Your task to perform on an android device: toggle airplane mode Image 0: 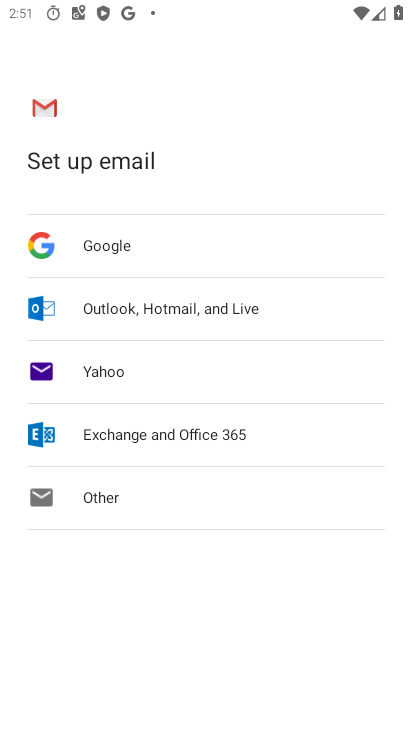
Step 0: click (307, 575)
Your task to perform on an android device: toggle airplane mode Image 1: 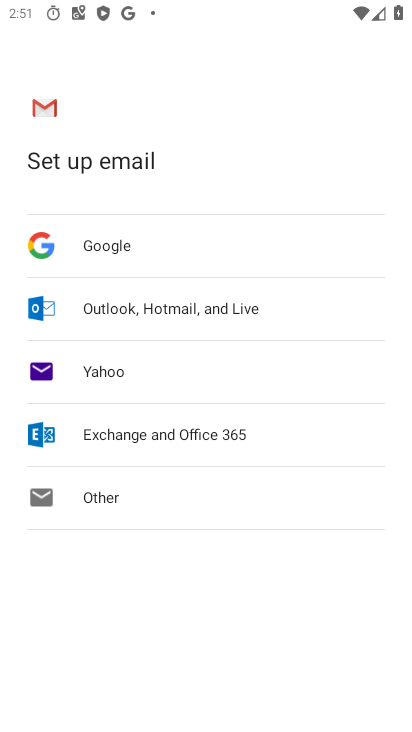
Step 1: press home button
Your task to perform on an android device: toggle airplane mode Image 2: 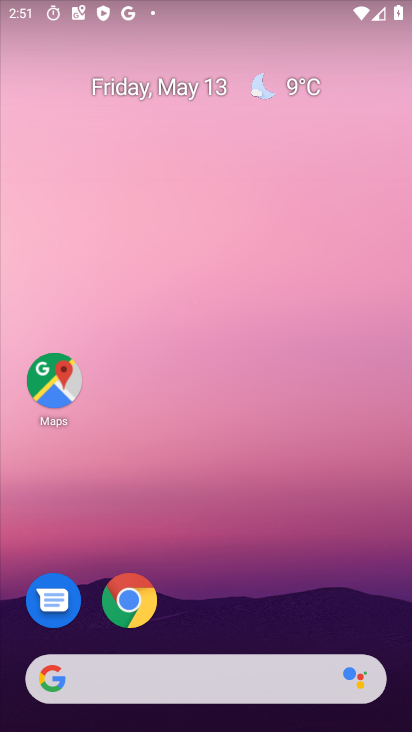
Step 2: drag from (155, 208) to (153, 94)
Your task to perform on an android device: toggle airplane mode Image 3: 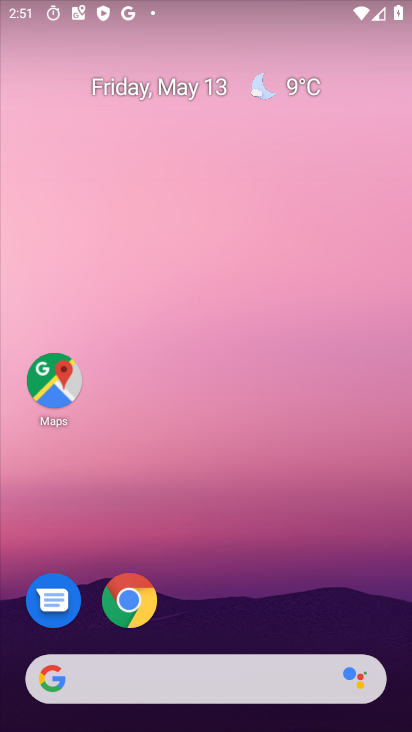
Step 3: drag from (225, 637) to (265, 197)
Your task to perform on an android device: toggle airplane mode Image 4: 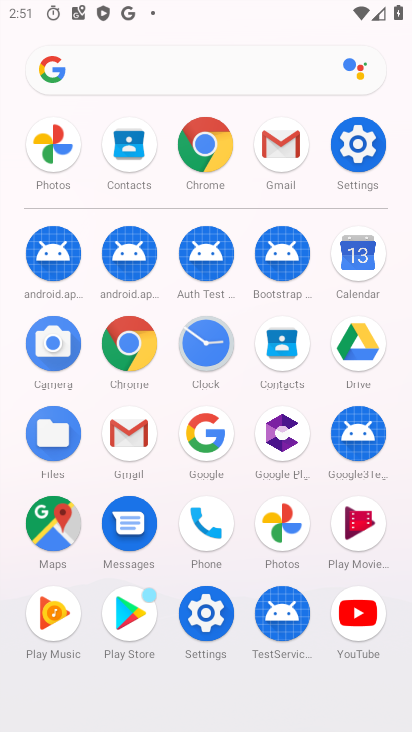
Step 4: click (363, 144)
Your task to perform on an android device: toggle airplane mode Image 5: 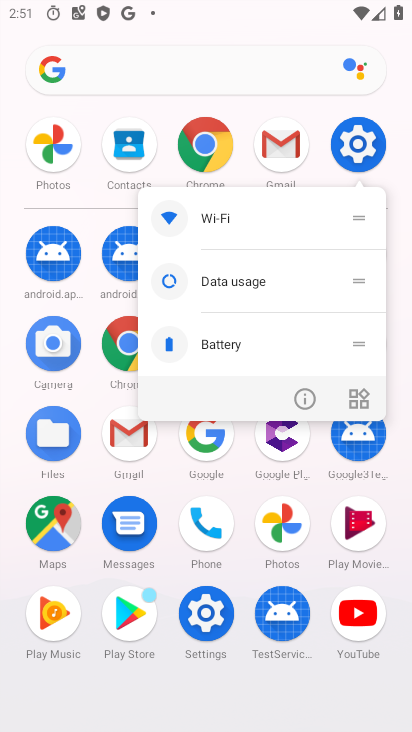
Step 5: click (297, 407)
Your task to perform on an android device: toggle airplane mode Image 6: 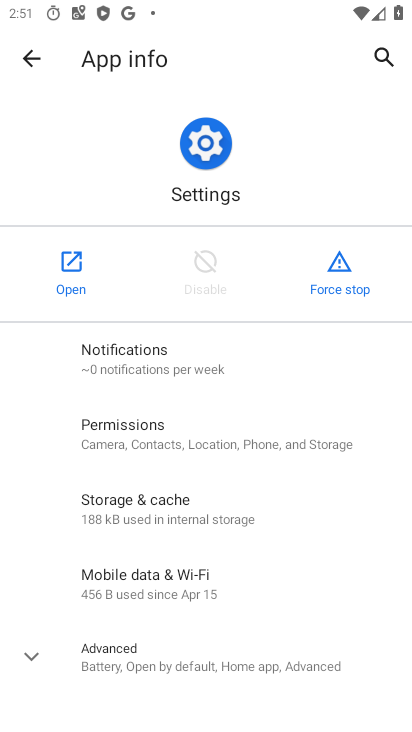
Step 6: click (71, 296)
Your task to perform on an android device: toggle airplane mode Image 7: 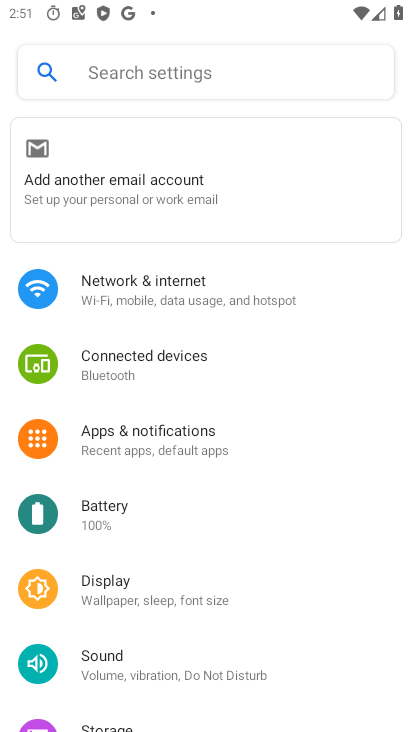
Step 7: click (140, 304)
Your task to perform on an android device: toggle airplane mode Image 8: 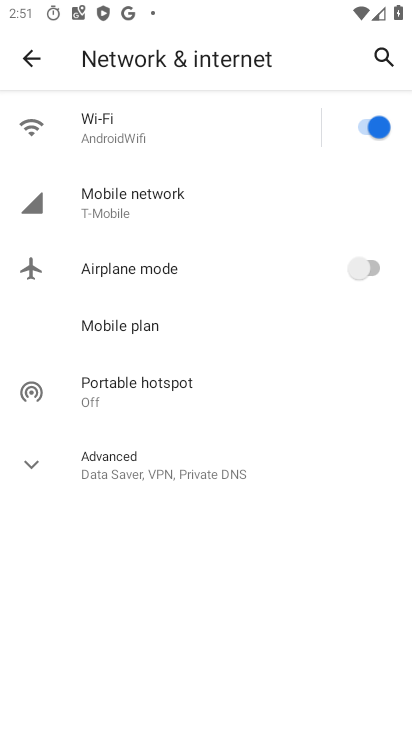
Step 8: click (303, 288)
Your task to perform on an android device: toggle airplane mode Image 9: 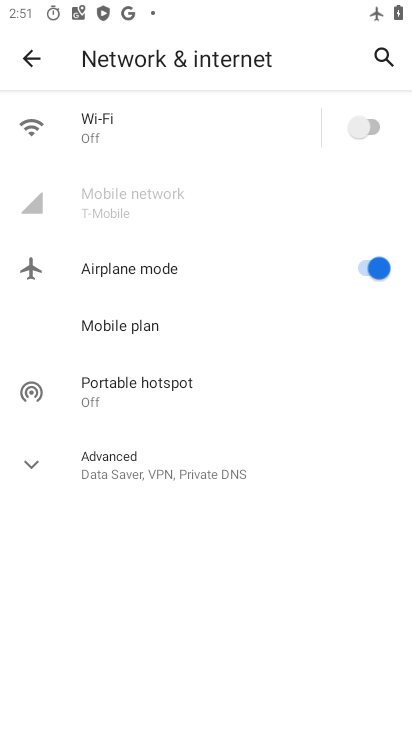
Step 9: task complete